Your task to perform on an android device: change alarm snooze length Image 0: 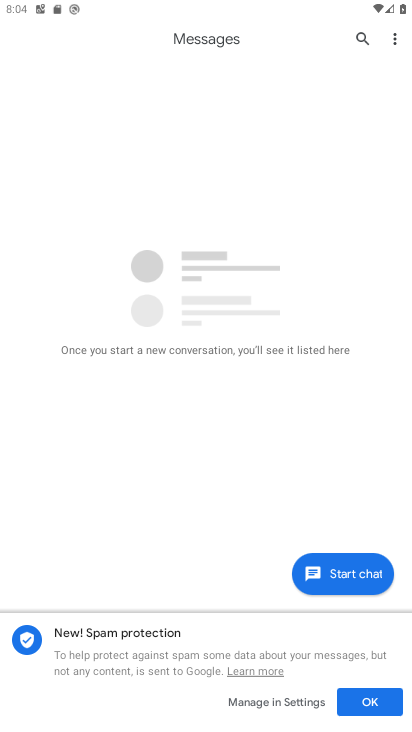
Step 0: press home button
Your task to perform on an android device: change alarm snooze length Image 1: 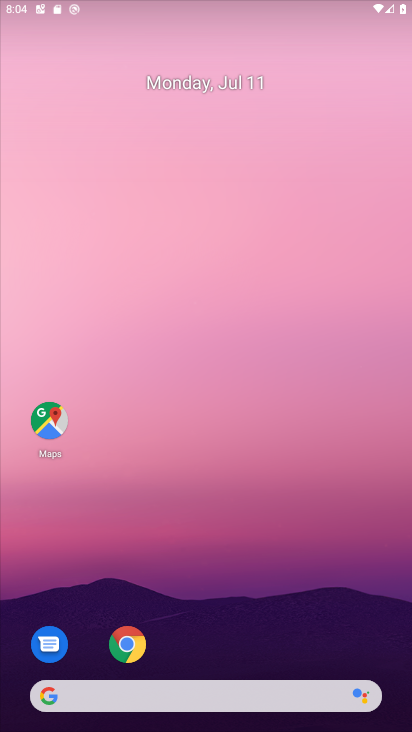
Step 1: drag from (144, 586) to (261, 0)
Your task to perform on an android device: change alarm snooze length Image 2: 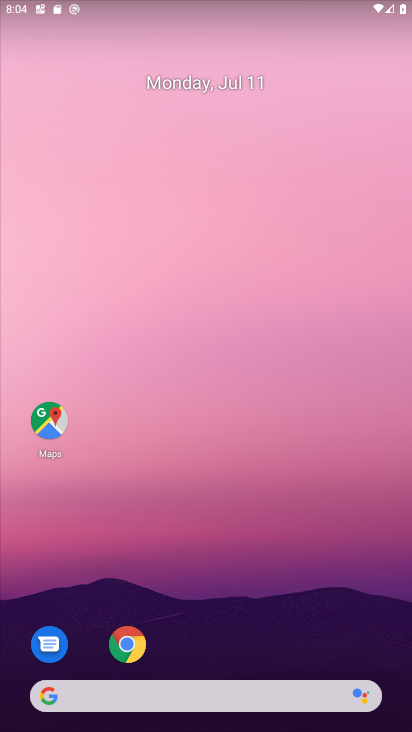
Step 2: drag from (275, 656) to (290, 180)
Your task to perform on an android device: change alarm snooze length Image 3: 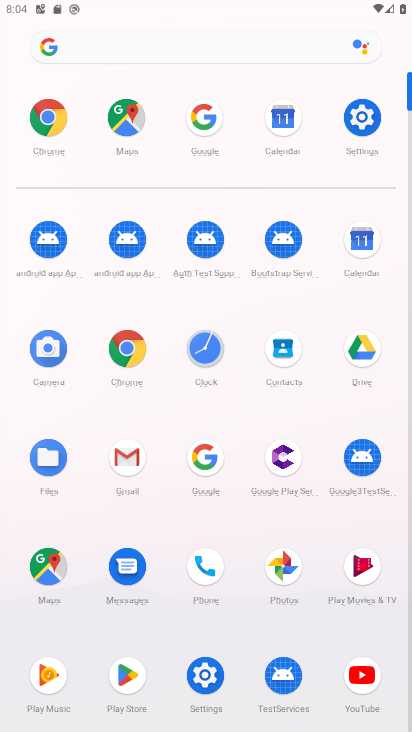
Step 3: click (194, 360)
Your task to perform on an android device: change alarm snooze length Image 4: 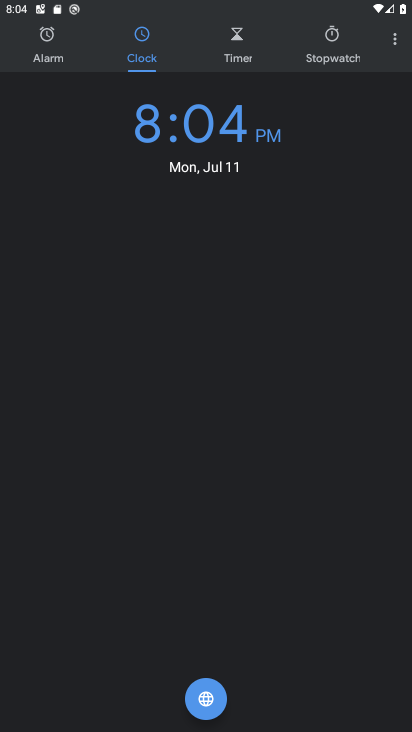
Step 4: click (394, 39)
Your task to perform on an android device: change alarm snooze length Image 5: 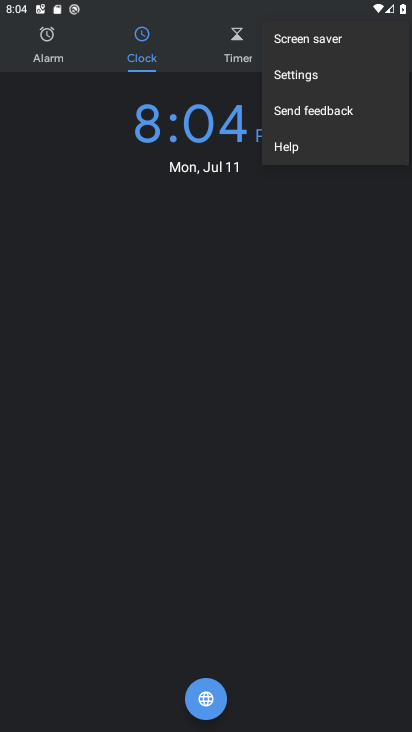
Step 5: click (347, 75)
Your task to perform on an android device: change alarm snooze length Image 6: 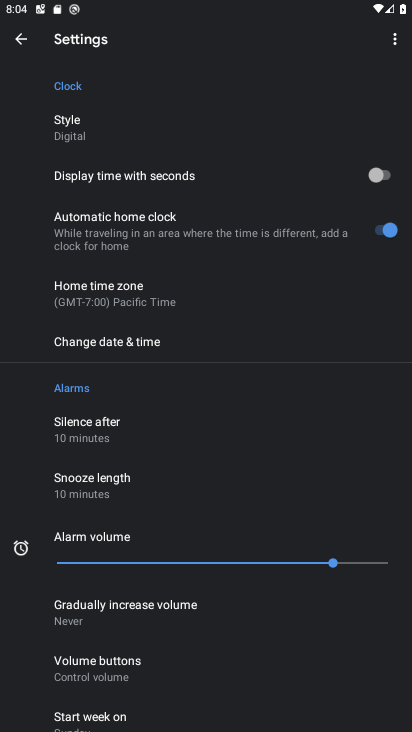
Step 6: click (83, 474)
Your task to perform on an android device: change alarm snooze length Image 7: 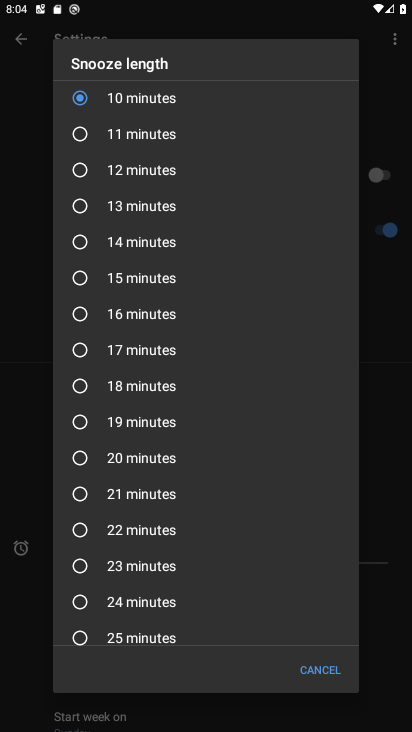
Step 7: click (148, 447)
Your task to perform on an android device: change alarm snooze length Image 8: 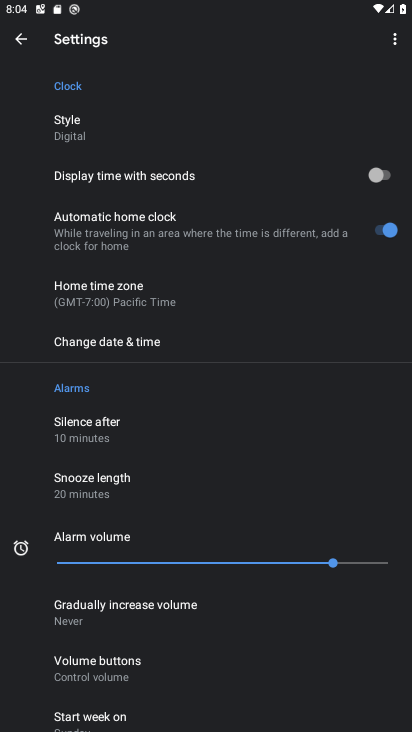
Step 8: task complete